Your task to perform on an android device: choose inbox layout in the gmail app Image 0: 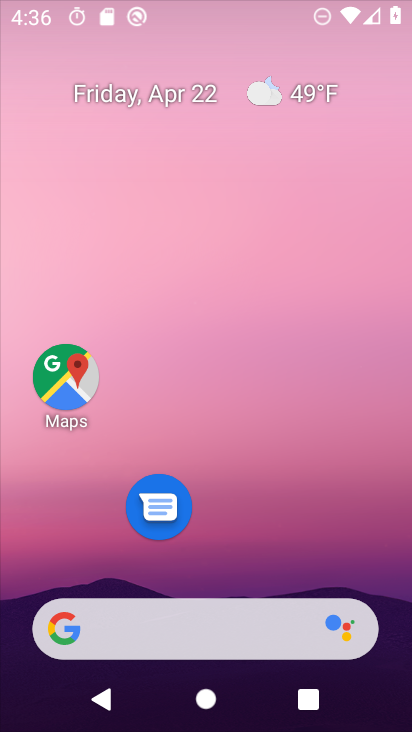
Step 0: drag from (220, 560) to (368, 17)
Your task to perform on an android device: choose inbox layout in the gmail app Image 1: 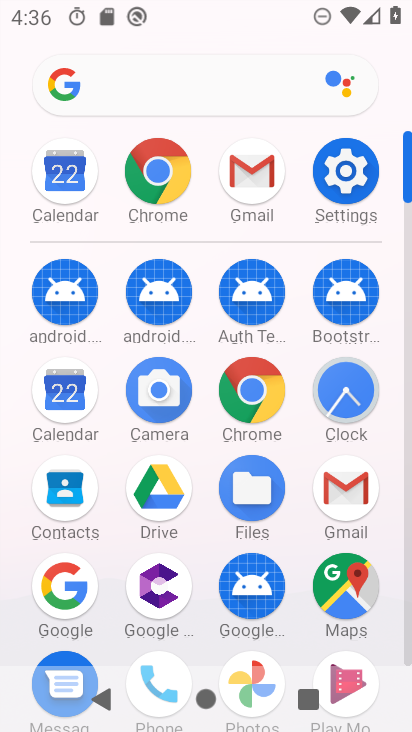
Step 1: click (251, 164)
Your task to perform on an android device: choose inbox layout in the gmail app Image 2: 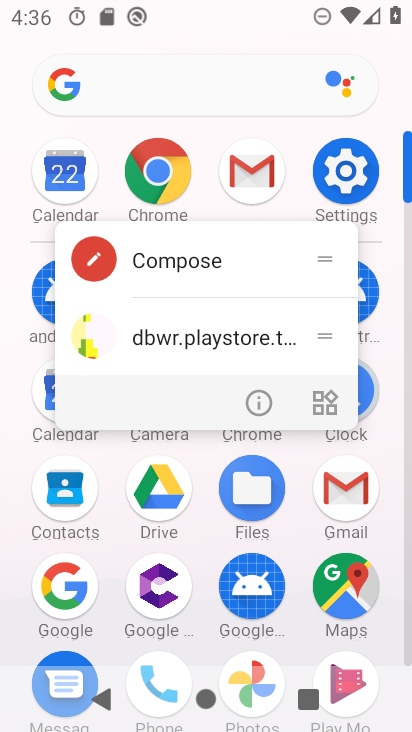
Step 2: click (251, 167)
Your task to perform on an android device: choose inbox layout in the gmail app Image 3: 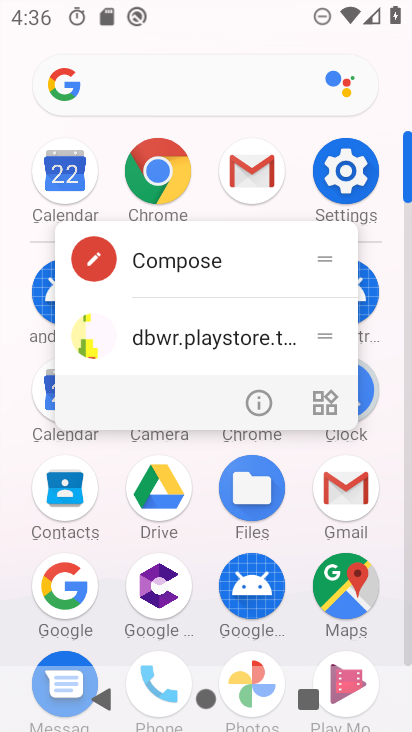
Step 3: click (257, 168)
Your task to perform on an android device: choose inbox layout in the gmail app Image 4: 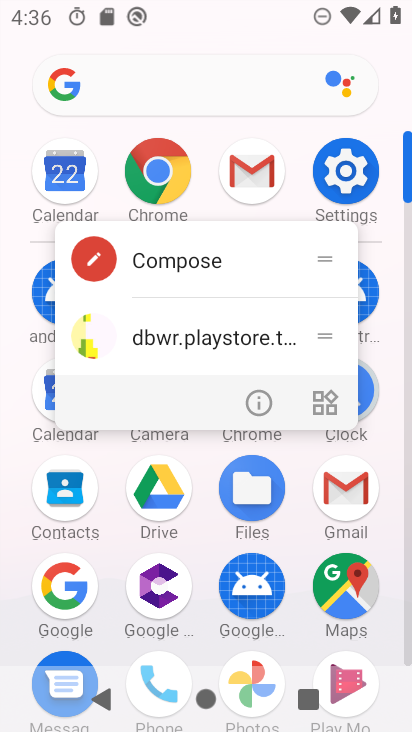
Step 4: click (250, 174)
Your task to perform on an android device: choose inbox layout in the gmail app Image 5: 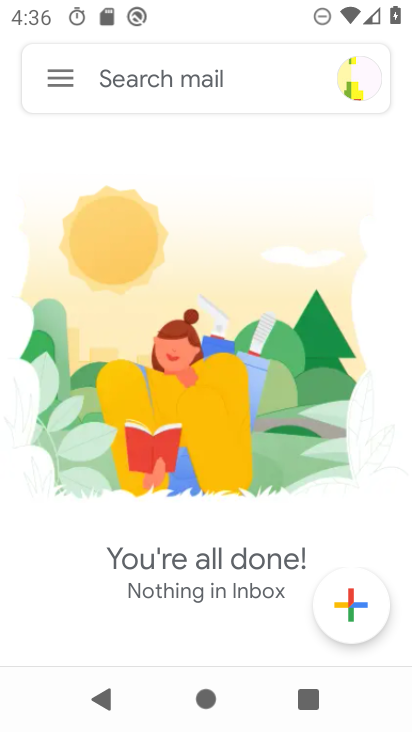
Step 5: click (51, 75)
Your task to perform on an android device: choose inbox layout in the gmail app Image 6: 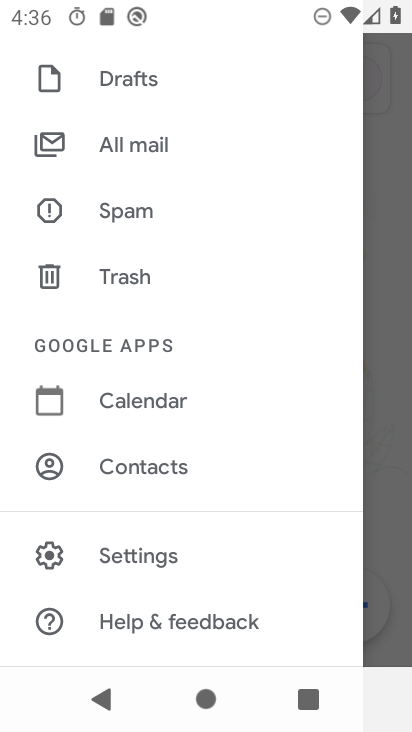
Step 6: click (166, 555)
Your task to perform on an android device: choose inbox layout in the gmail app Image 7: 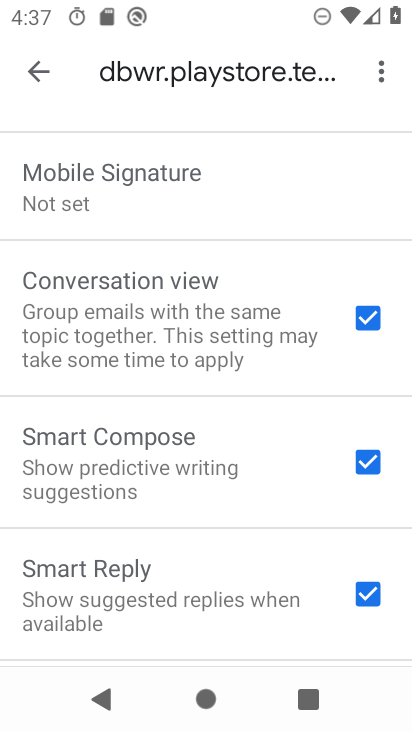
Step 7: drag from (139, 575) to (281, 123)
Your task to perform on an android device: choose inbox layout in the gmail app Image 8: 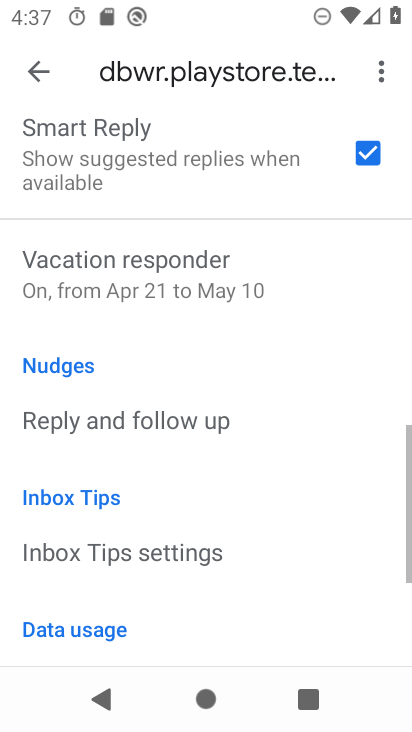
Step 8: drag from (243, 153) to (173, 654)
Your task to perform on an android device: choose inbox layout in the gmail app Image 9: 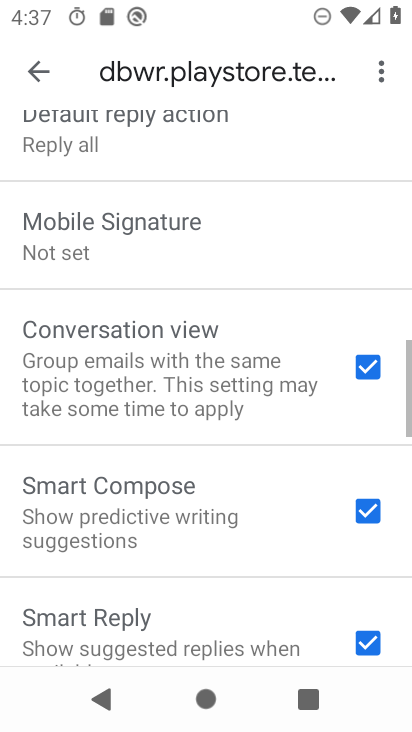
Step 9: drag from (193, 193) to (138, 597)
Your task to perform on an android device: choose inbox layout in the gmail app Image 10: 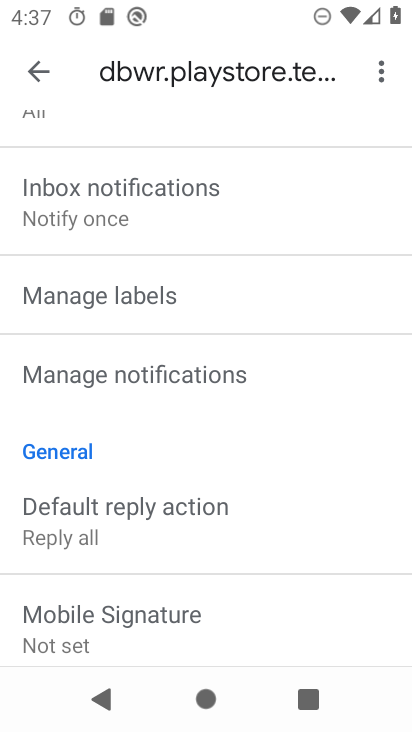
Step 10: drag from (151, 225) to (99, 647)
Your task to perform on an android device: choose inbox layout in the gmail app Image 11: 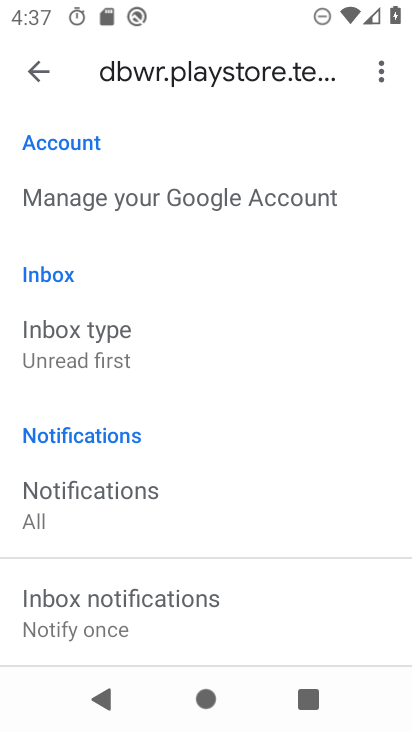
Step 11: click (123, 343)
Your task to perform on an android device: choose inbox layout in the gmail app Image 12: 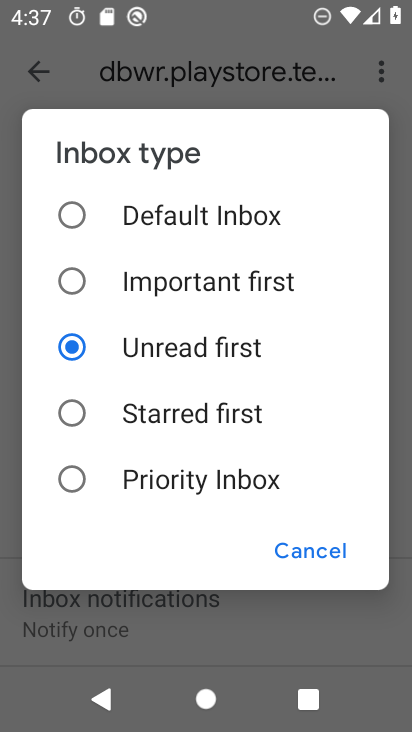
Step 12: click (73, 208)
Your task to perform on an android device: choose inbox layout in the gmail app Image 13: 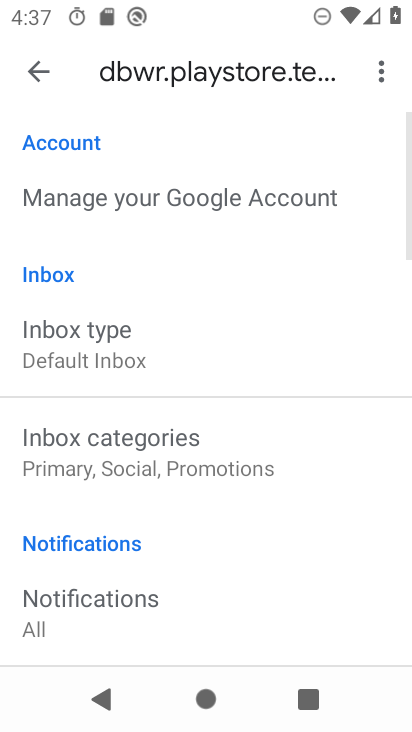
Step 13: task complete